Your task to perform on an android device: check out phone information Image 0: 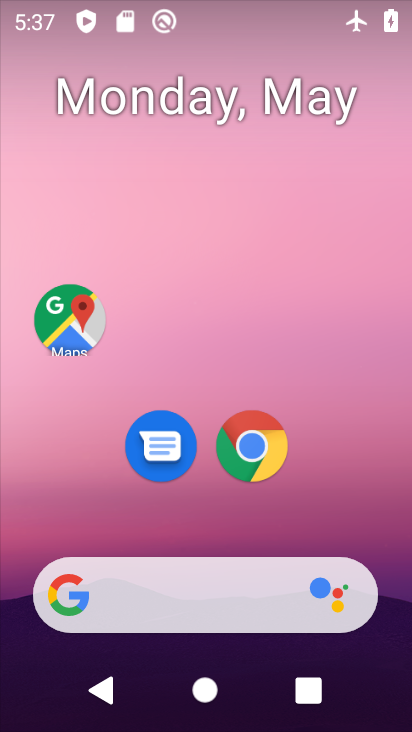
Step 0: drag from (340, 487) to (252, 71)
Your task to perform on an android device: check out phone information Image 1: 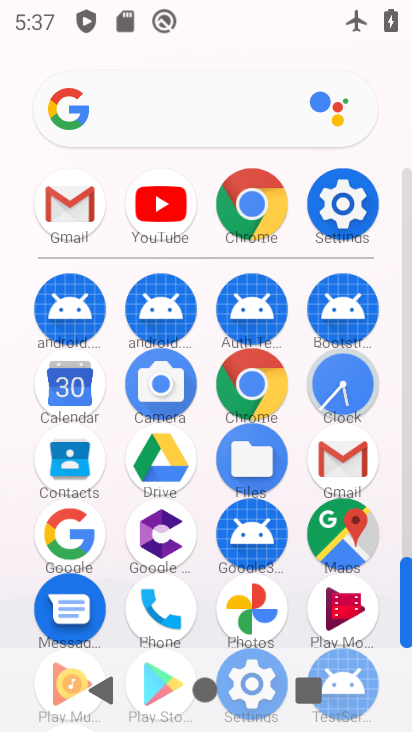
Step 1: click (340, 210)
Your task to perform on an android device: check out phone information Image 2: 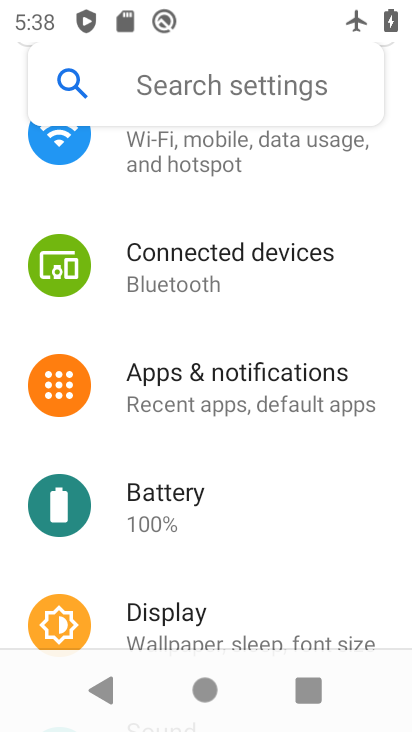
Step 2: drag from (257, 310) to (195, 729)
Your task to perform on an android device: check out phone information Image 3: 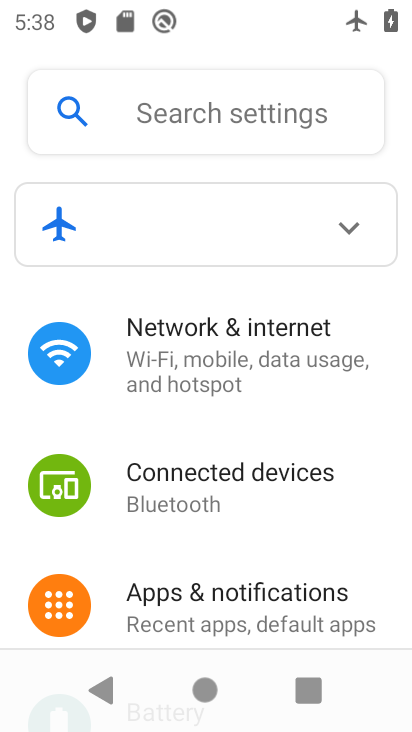
Step 3: drag from (226, 532) to (206, 259)
Your task to perform on an android device: check out phone information Image 4: 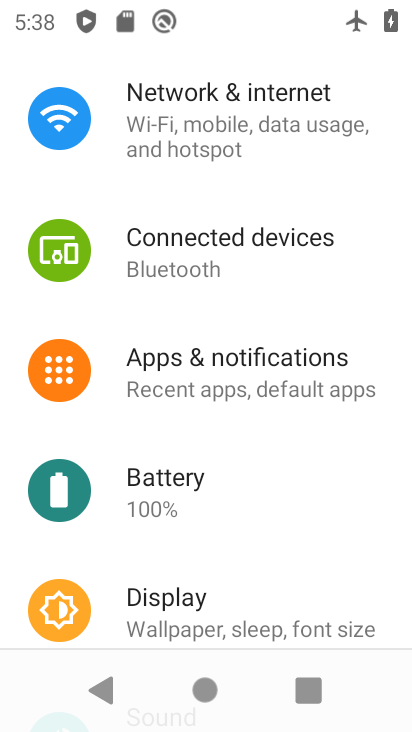
Step 4: drag from (276, 486) to (272, 231)
Your task to perform on an android device: check out phone information Image 5: 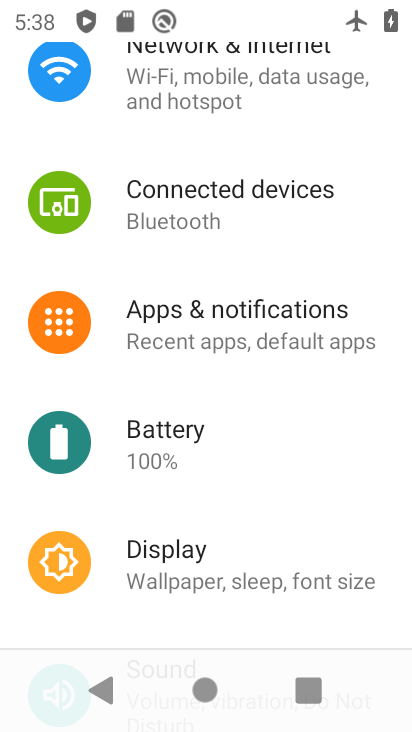
Step 5: drag from (227, 498) to (220, 200)
Your task to perform on an android device: check out phone information Image 6: 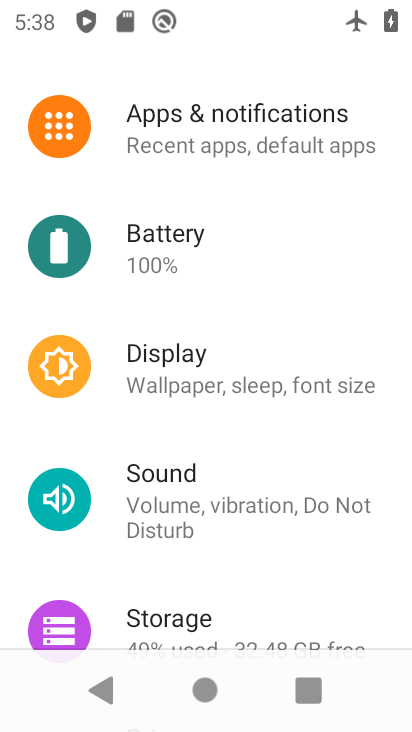
Step 6: drag from (266, 595) to (229, 249)
Your task to perform on an android device: check out phone information Image 7: 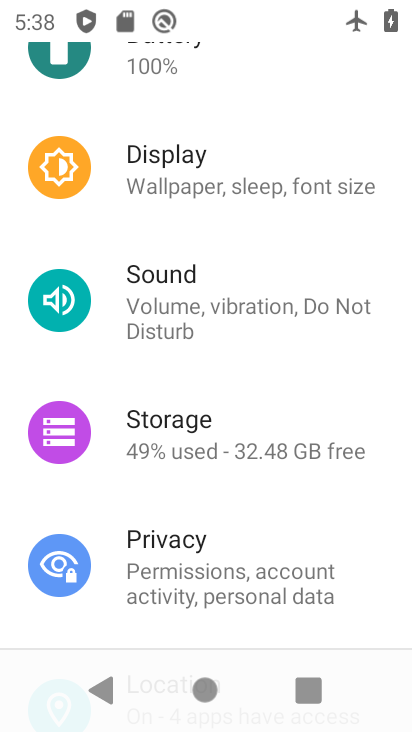
Step 7: drag from (240, 485) to (199, 217)
Your task to perform on an android device: check out phone information Image 8: 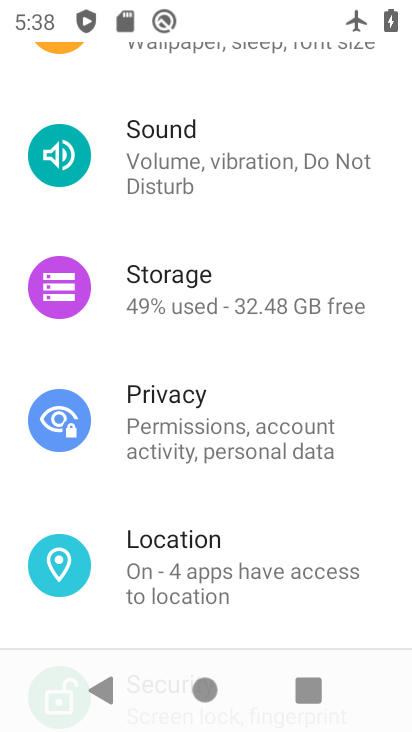
Step 8: drag from (236, 517) to (234, 140)
Your task to perform on an android device: check out phone information Image 9: 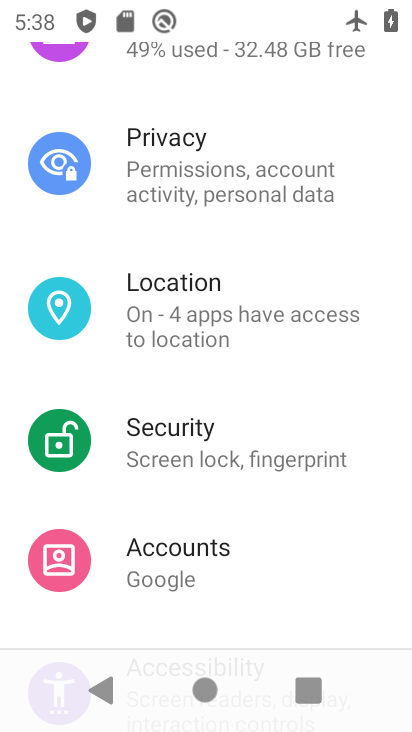
Step 9: drag from (250, 480) to (206, 108)
Your task to perform on an android device: check out phone information Image 10: 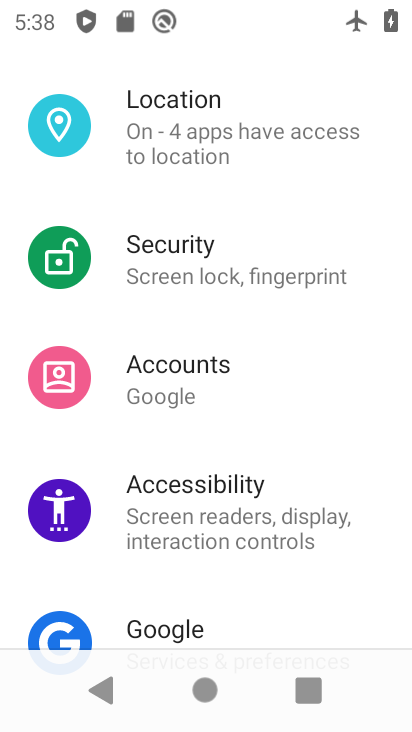
Step 10: drag from (227, 440) to (190, 150)
Your task to perform on an android device: check out phone information Image 11: 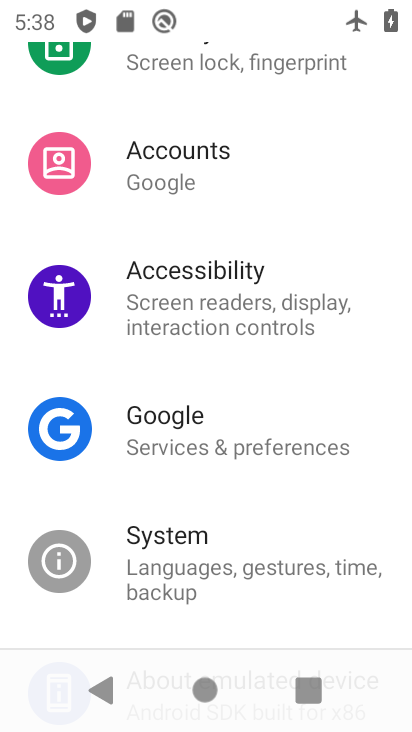
Step 11: drag from (218, 509) to (184, 150)
Your task to perform on an android device: check out phone information Image 12: 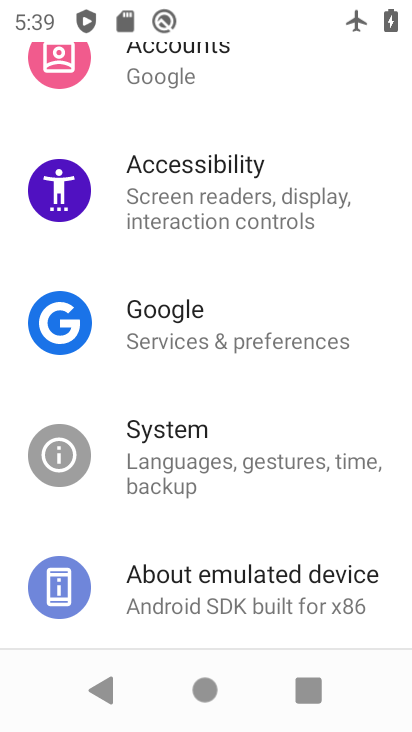
Step 12: click (230, 580)
Your task to perform on an android device: check out phone information Image 13: 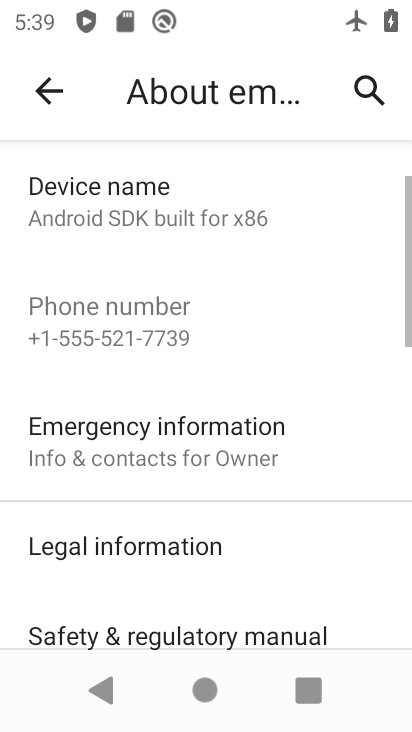
Step 13: task complete